Your task to perform on an android device: find which apps use the phone's location Image 0: 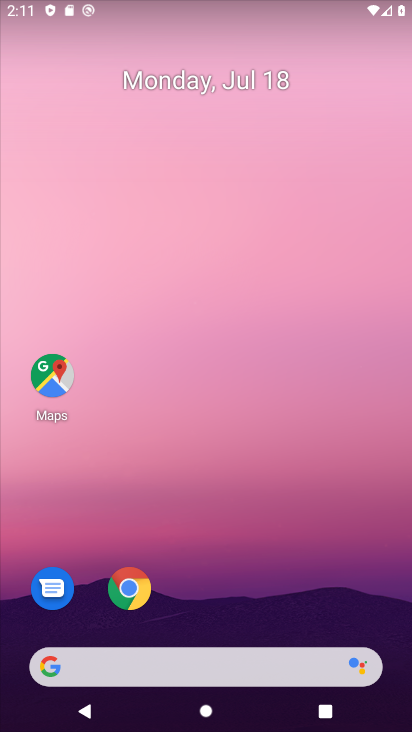
Step 0: drag from (246, 602) to (199, 91)
Your task to perform on an android device: find which apps use the phone's location Image 1: 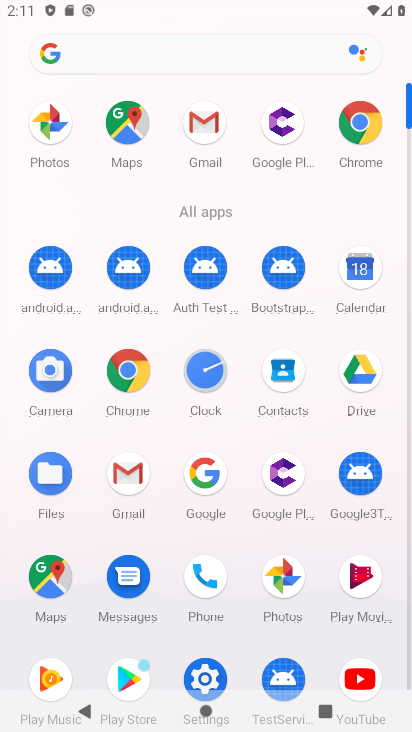
Step 1: click (208, 674)
Your task to perform on an android device: find which apps use the phone's location Image 2: 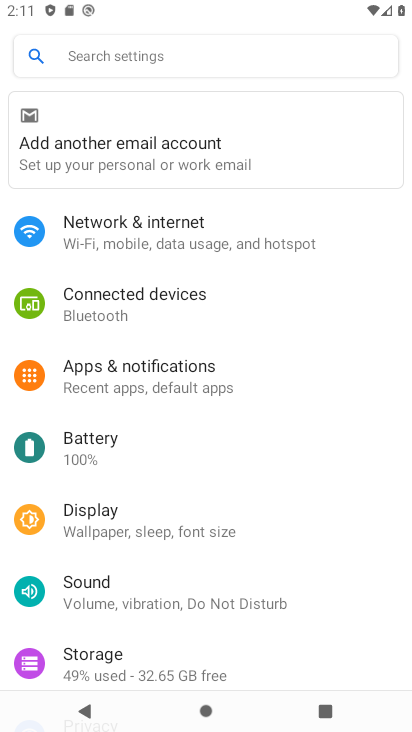
Step 2: drag from (207, 643) to (243, 291)
Your task to perform on an android device: find which apps use the phone's location Image 3: 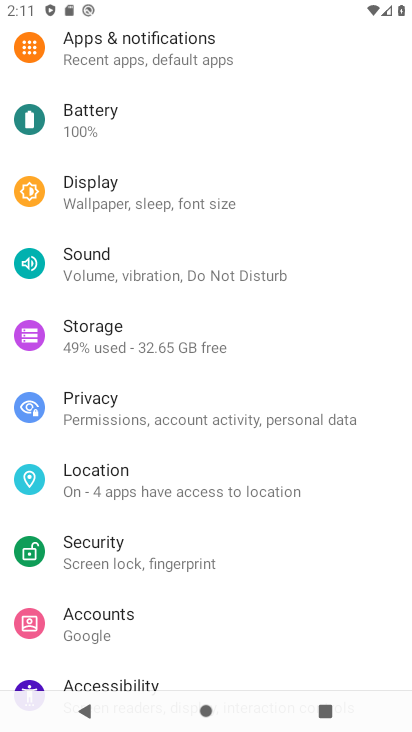
Step 3: drag from (355, 608) to (354, 226)
Your task to perform on an android device: find which apps use the phone's location Image 4: 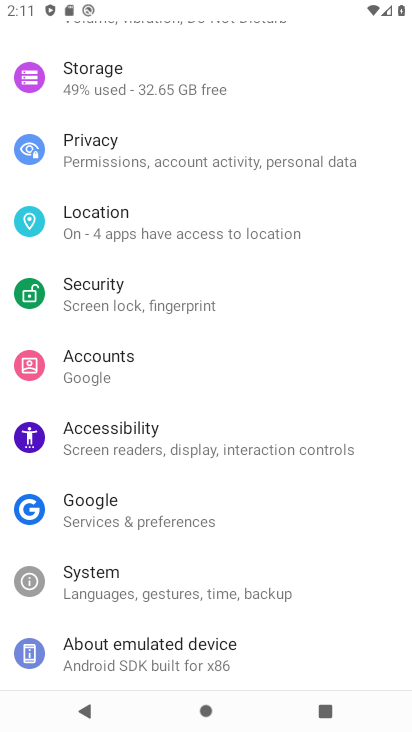
Step 4: click (130, 219)
Your task to perform on an android device: find which apps use the phone's location Image 5: 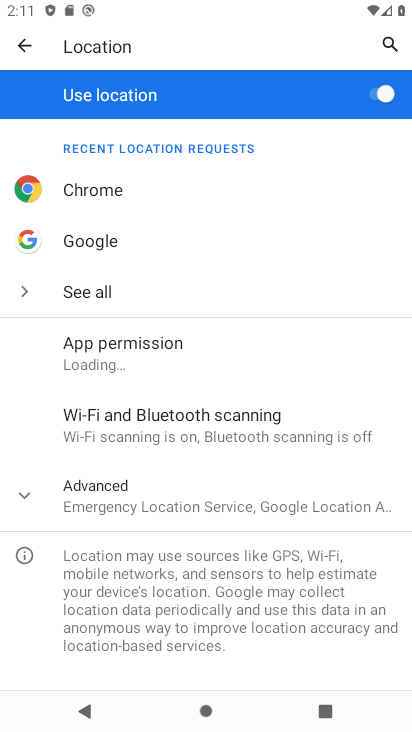
Step 5: click (183, 500)
Your task to perform on an android device: find which apps use the phone's location Image 6: 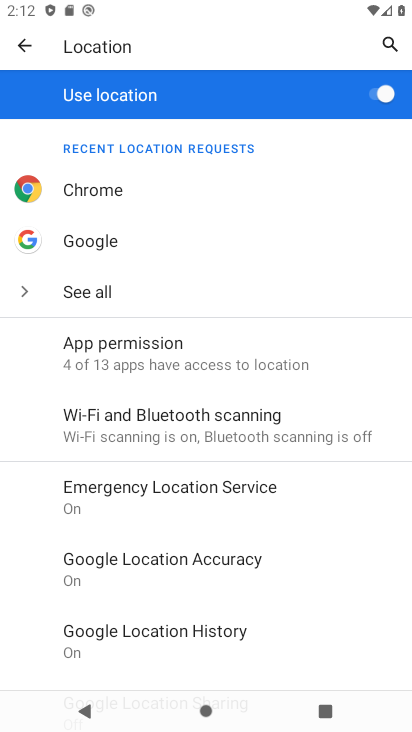
Step 6: click (138, 338)
Your task to perform on an android device: find which apps use the phone's location Image 7: 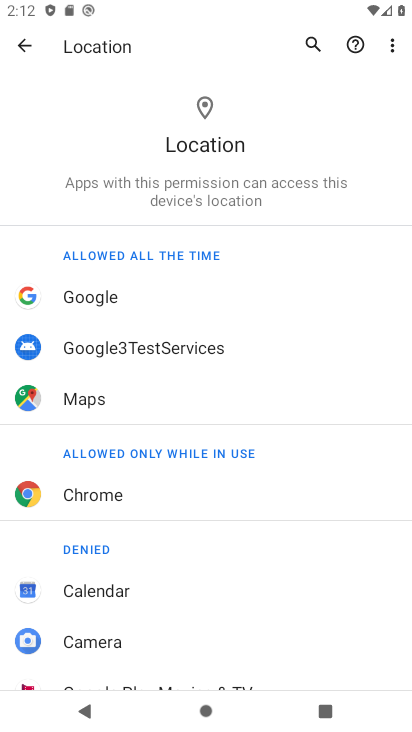
Step 7: task complete